Your task to perform on an android device: Check the news Image 0: 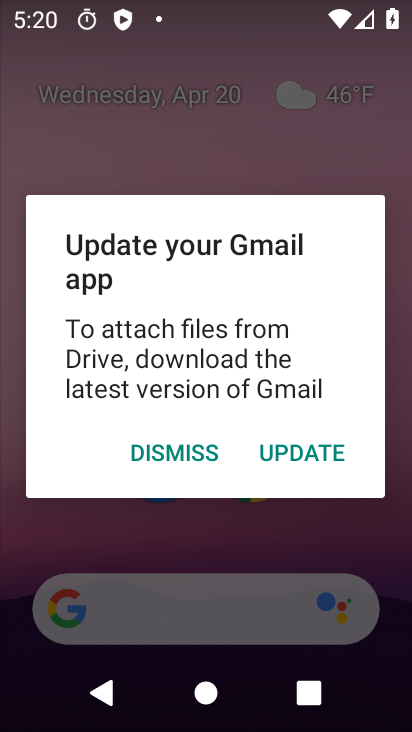
Step 0: click (187, 446)
Your task to perform on an android device: Check the news Image 1: 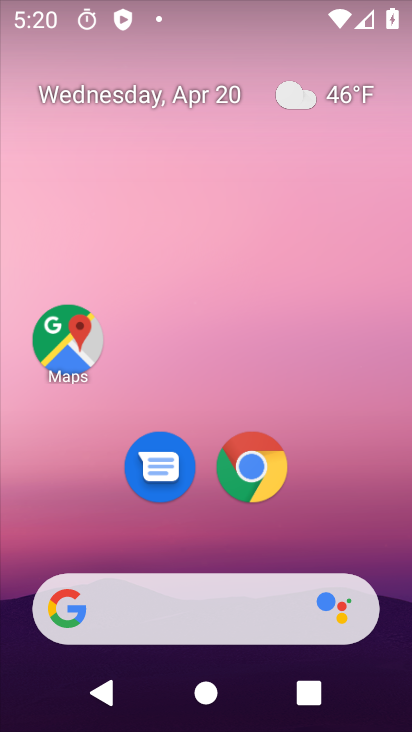
Step 1: click (183, 619)
Your task to perform on an android device: Check the news Image 2: 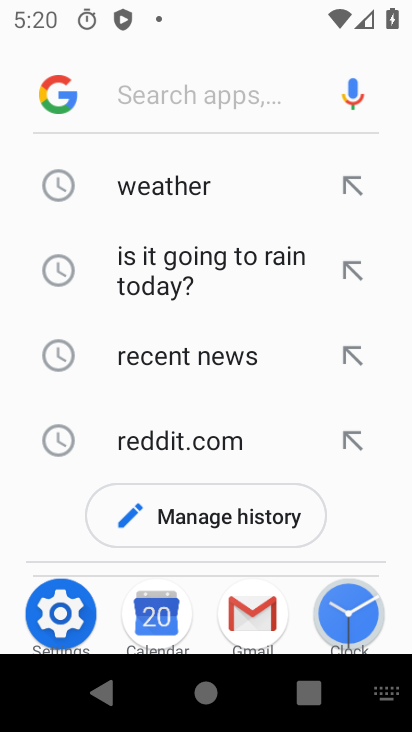
Step 2: type "news"
Your task to perform on an android device: Check the news Image 3: 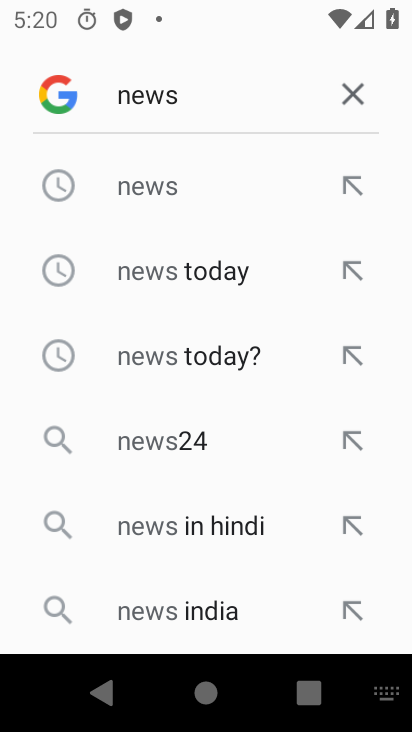
Step 3: click (198, 181)
Your task to perform on an android device: Check the news Image 4: 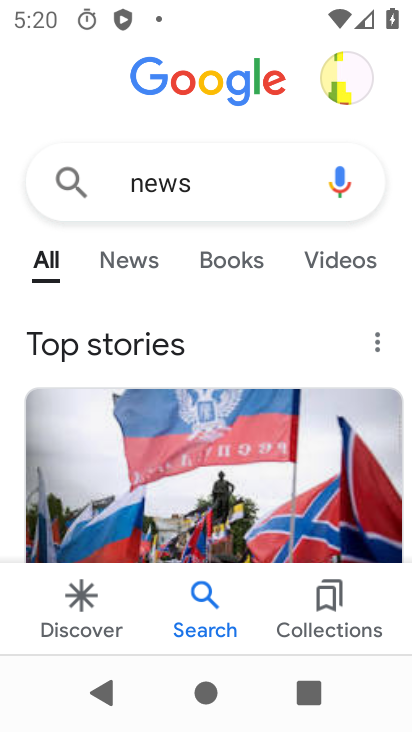
Step 4: task complete